Your task to perform on an android device: turn on bluetooth scan Image 0: 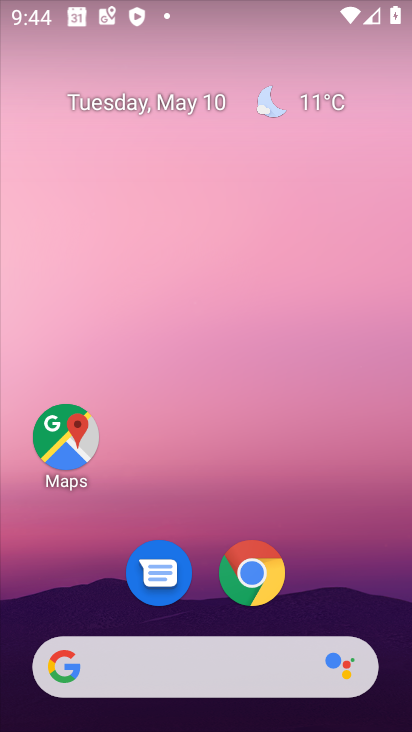
Step 0: drag from (370, 623) to (382, 15)
Your task to perform on an android device: turn on bluetooth scan Image 1: 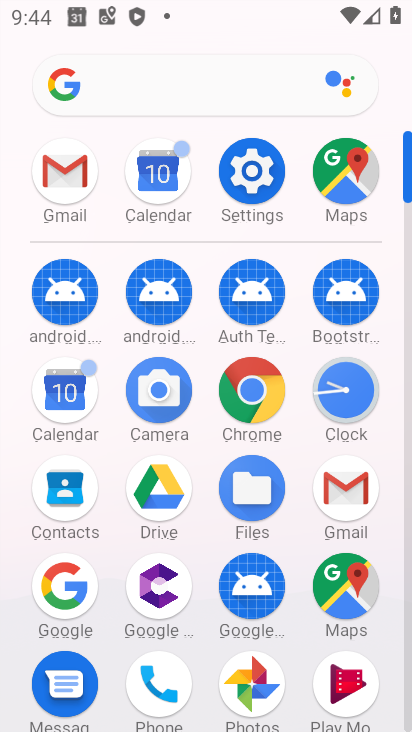
Step 1: click (252, 173)
Your task to perform on an android device: turn on bluetooth scan Image 2: 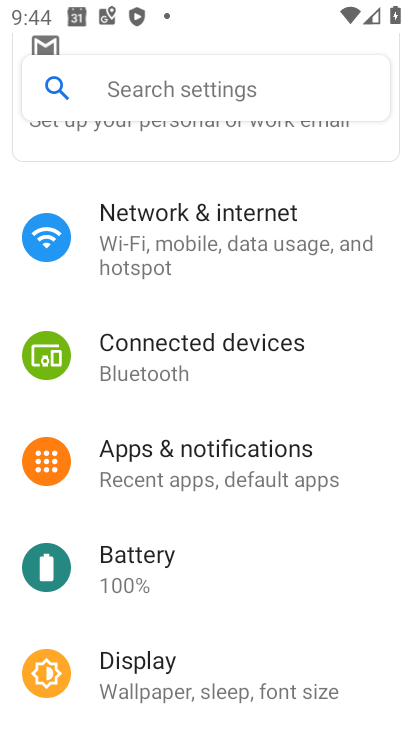
Step 2: drag from (334, 533) to (321, 125)
Your task to perform on an android device: turn on bluetooth scan Image 3: 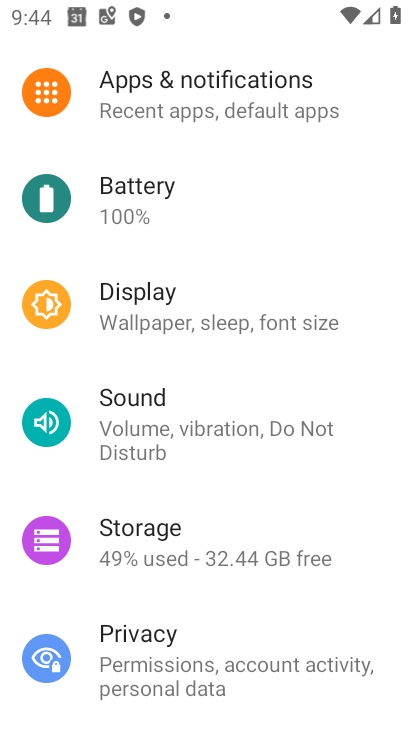
Step 3: drag from (281, 552) to (284, 7)
Your task to perform on an android device: turn on bluetooth scan Image 4: 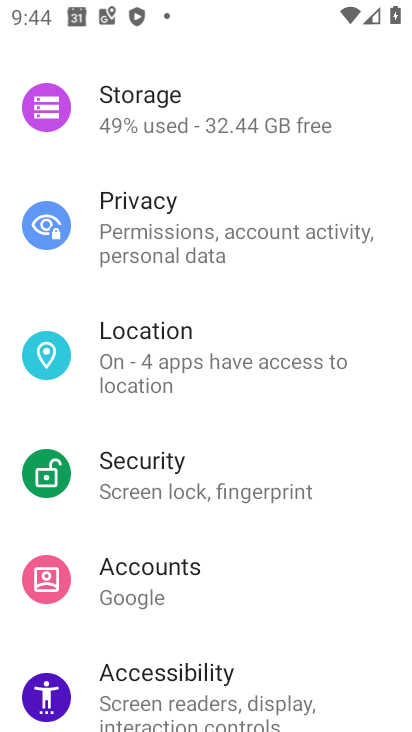
Step 4: click (156, 365)
Your task to perform on an android device: turn on bluetooth scan Image 5: 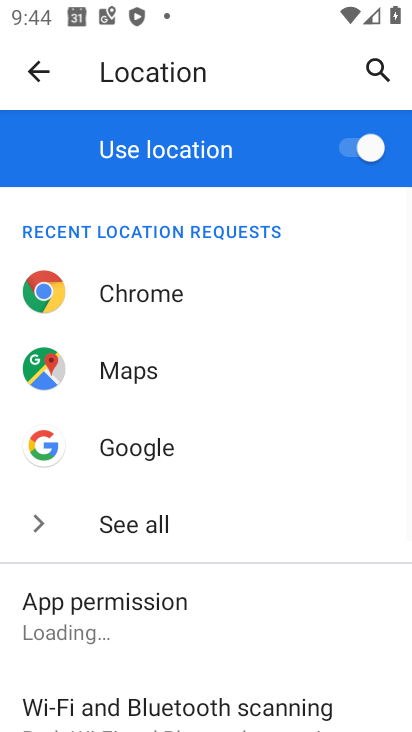
Step 5: drag from (265, 599) to (266, 205)
Your task to perform on an android device: turn on bluetooth scan Image 6: 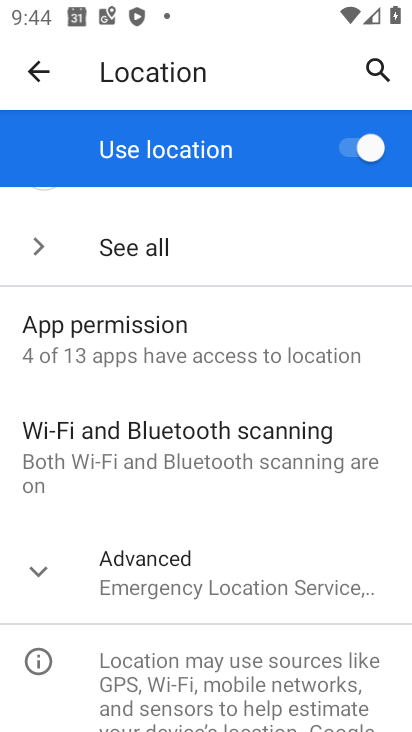
Step 6: click (180, 438)
Your task to perform on an android device: turn on bluetooth scan Image 7: 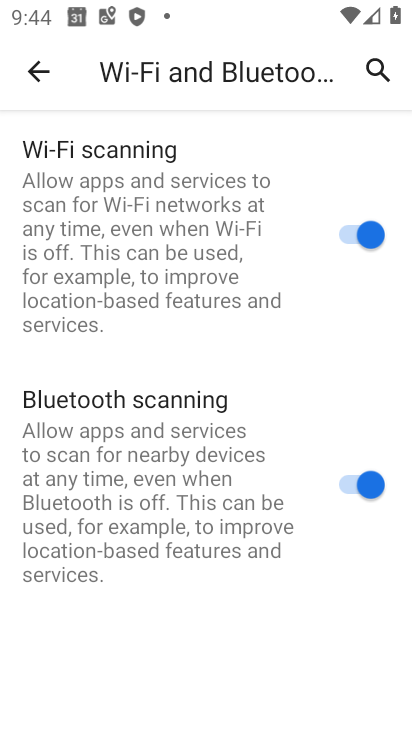
Step 7: task complete